Your task to perform on an android device: see creations saved in the google photos Image 0: 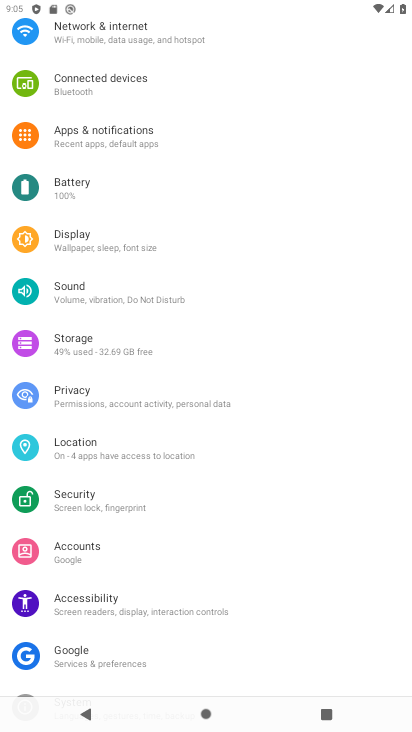
Step 0: press home button
Your task to perform on an android device: see creations saved in the google photos Image 1: 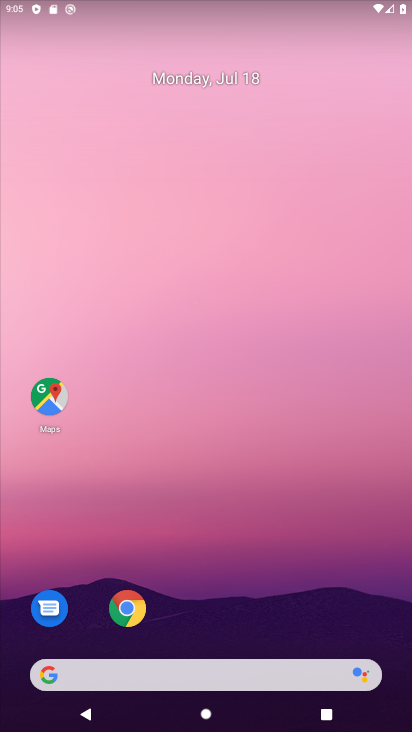
Step 1: drag from (216, 642) to (225, 51)
Your task to perform on an android device: see creations saved in the google photos Image 2: 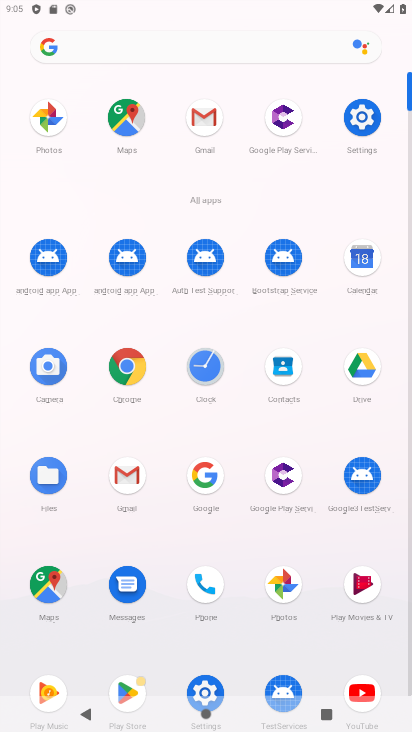
Step 2: click (283, 579)
Your task to perform on an android device: see creations saved in the google photos Image 3: 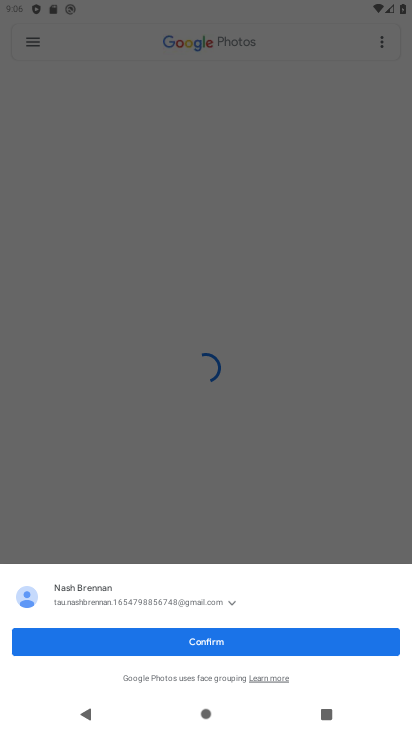
Step 3: click (27, 32)
Your task to perform on an android device: see creations saved in the google photos Image 4: 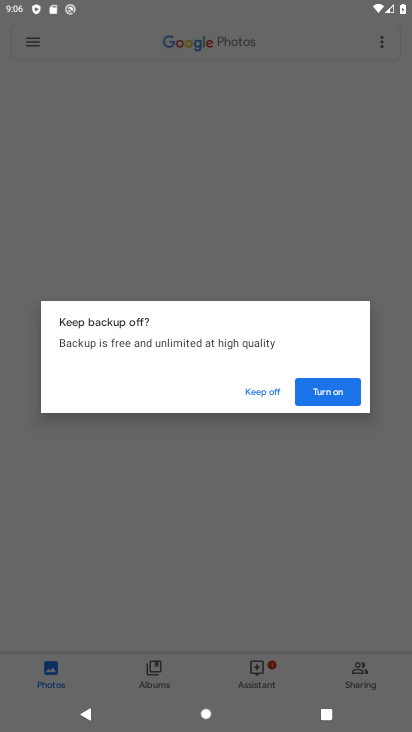
Step 4: click (272, 388)
Your task to perform on an android device: see creations saved in the google photos Image 5: 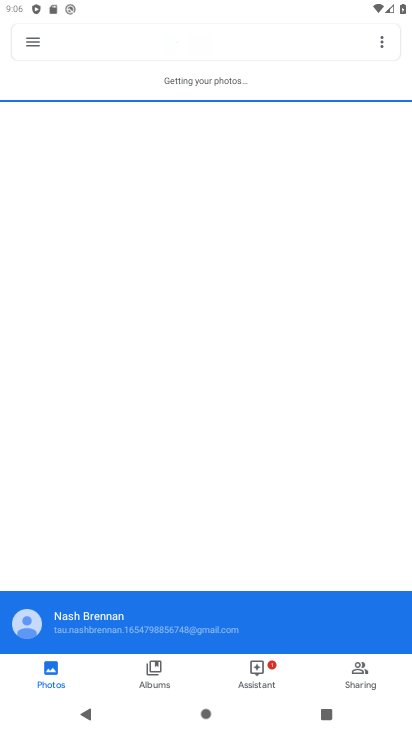
Step 5: click (135, 33)
Your task to perform on an android device: see creations saved in the google photos Image 6: 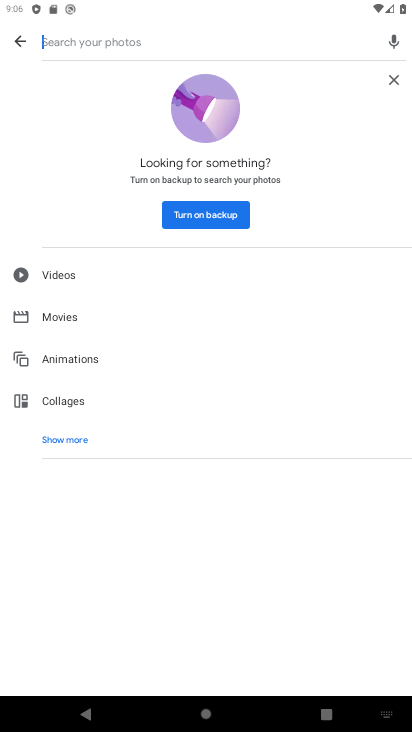
Step 6: click (70, 432)
Your task to perform on an android device: see creations saved in the google photos Image 7: 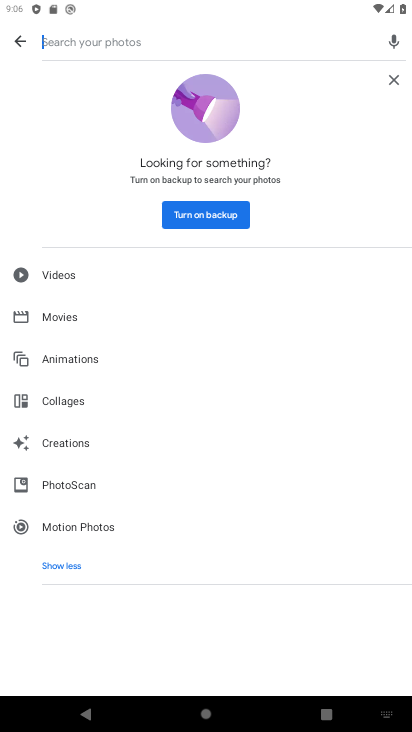
Step 7: click (83, 433)
Your task to perform on an android device: see creations saved in the google photos Image 8: 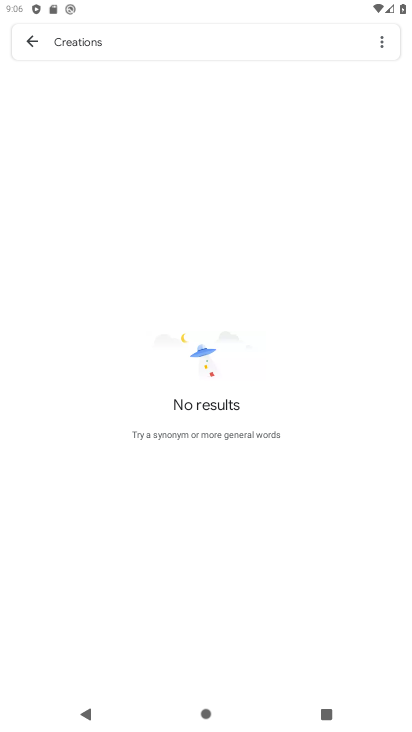
Step 8: task complete